Your task to perform on an android device: Is it going to rain tomorrow? Image 0: 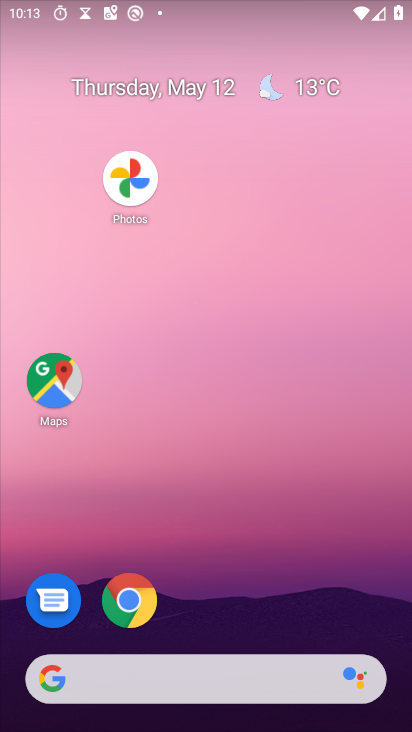
Step 0: drag from (212, 583) to (34, 112)
Your task to perform on an android device: Is it going to rain tomorrow? Image 1: 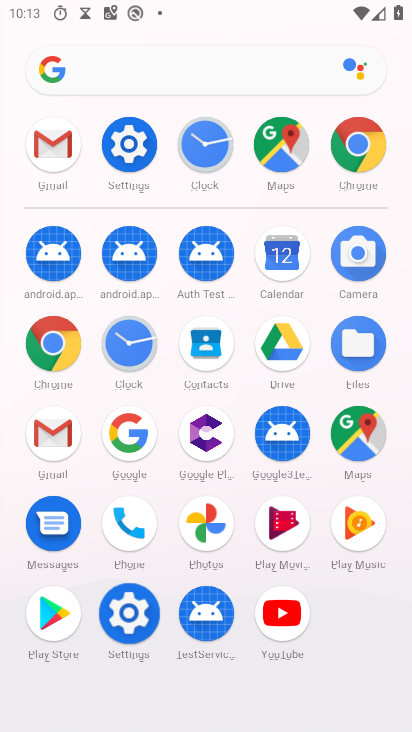
Step 1: drag from (277, 501) to (198, 31)
Your task to perform on an android device: Is it going to rain tomorrow? Image 2: 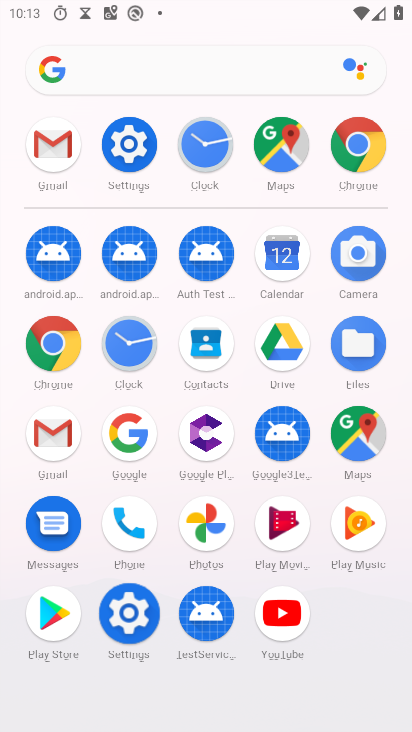
Step 2: drag from (244, 538) to (194, 45)
Your task to perform on an android device: Is it going to rain tomorrow? Image 3: 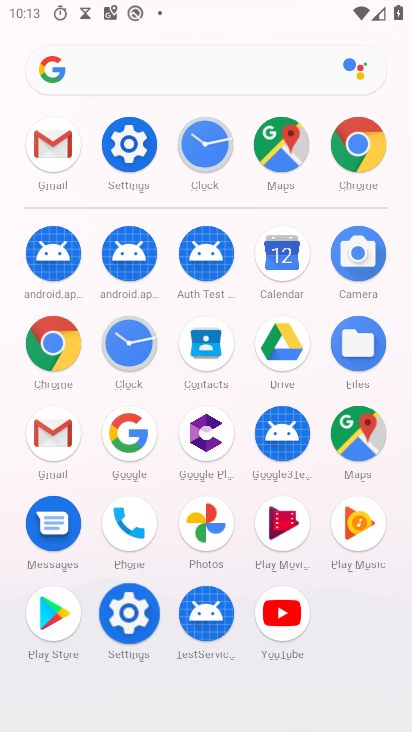
Step 3: press back button
Your task to perform on an android device: Is it going to rain tomorrow? Image 4: 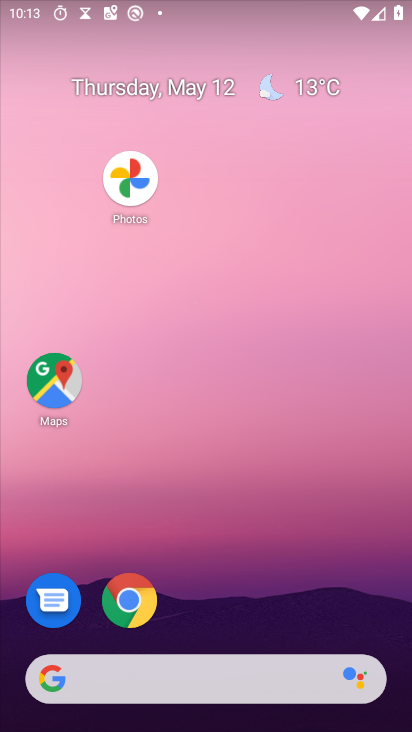
Step 4: press home button
Your task to perform on an android device: Is it going to rain tomorrow? Image 5: 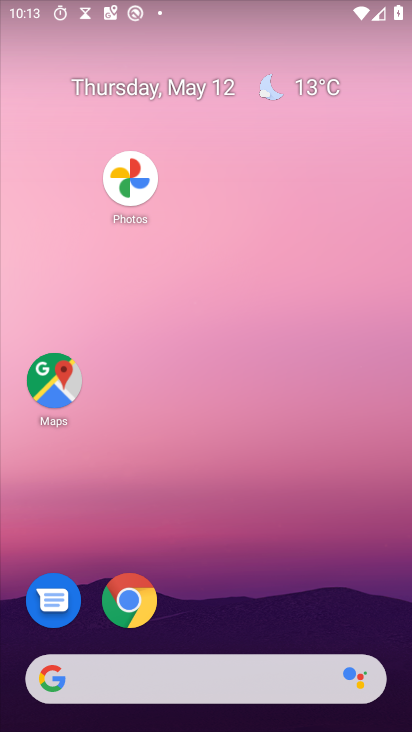
Step 5: drag from (46, 262) to (355, 431)
Your task to perform on an android device: Is it going to rain tomorrow? Image 6: 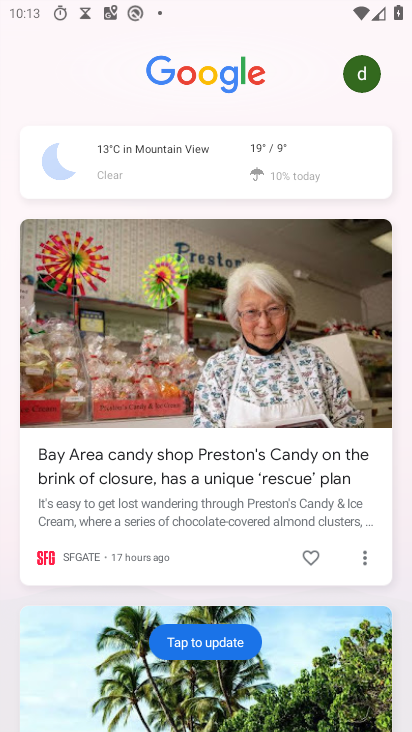
Step 6: click (153, 170)
Your task to perform on an android device: Is it going to rain tomorrow? Image 7: 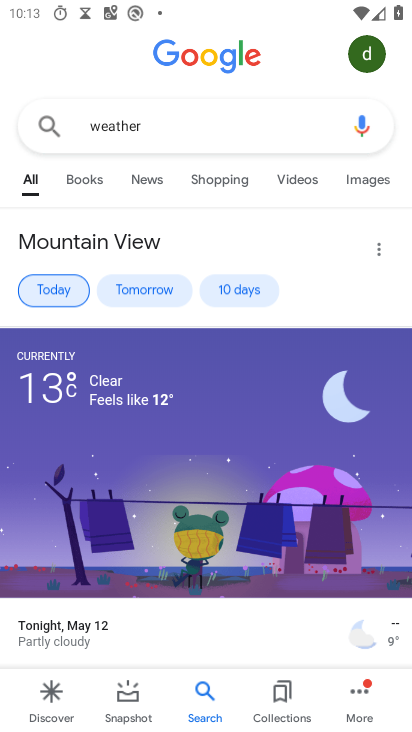
Step 7: click (158, 288)
Your task to perform on an android device: Is it going to rain tomorrow? Image 8: 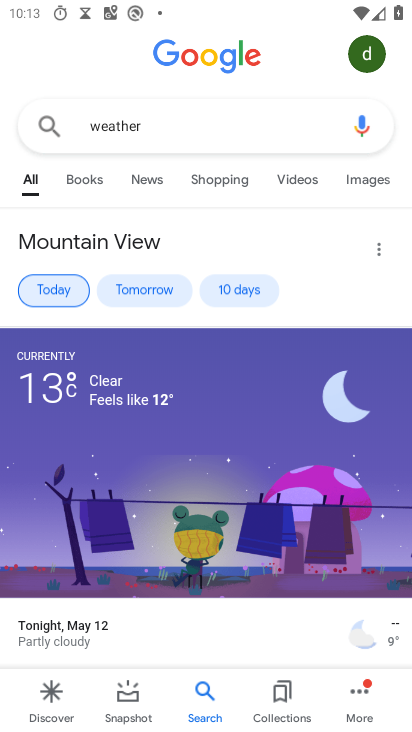
Step 8: click (155, 284)
Your task to perform on an android device: Is it going to rain tomorrow? Image 9: 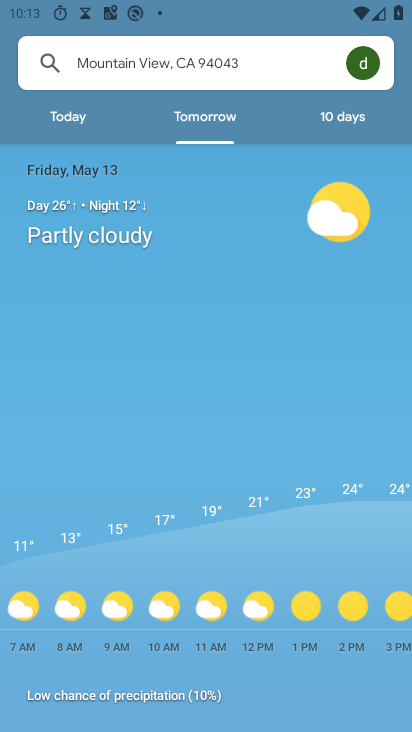
Step 9: task complete